Your task to perform on an android device: toggle notification dots Image 0: 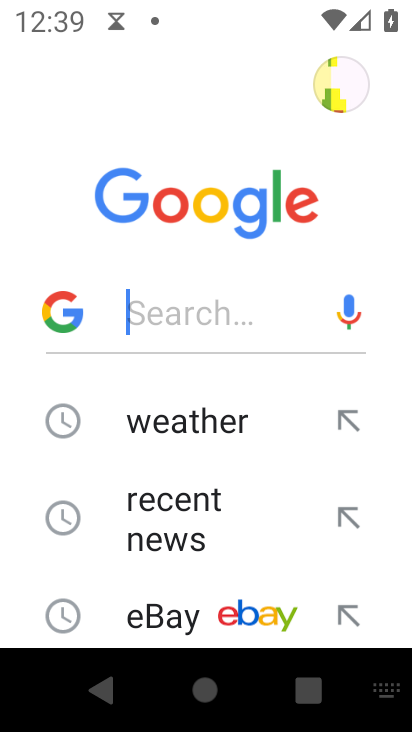
Step 0: press home button
Your task to perform on an android device: toggle notification dots Image 1: 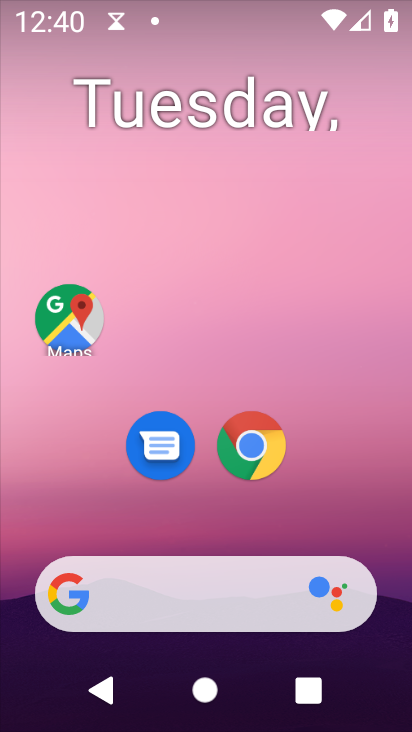
Step 1: drag from (184, 617) to (170, 54)
Your task to perform on an android device: toggle notification dots Image 2: 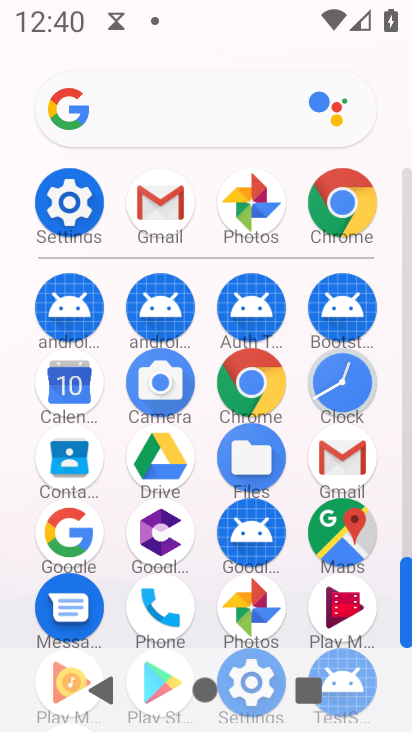
Step 2: click (67, 218)
Your task to perform on an android device: toggle notification dots Image 3: 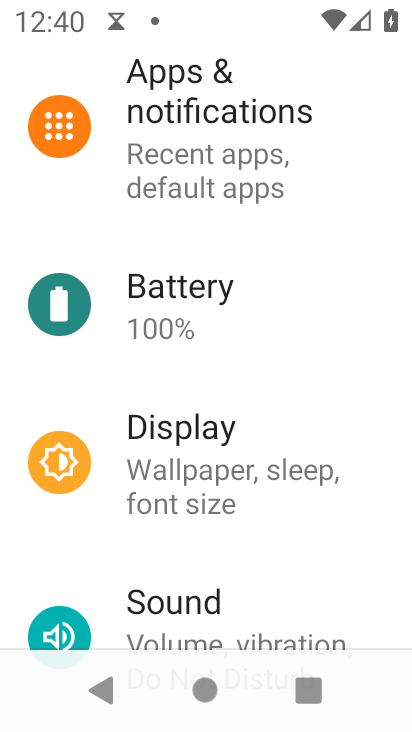
Step 3: click (208, 173)
Your task to perform on an android device: toggle notification dots Image 4: 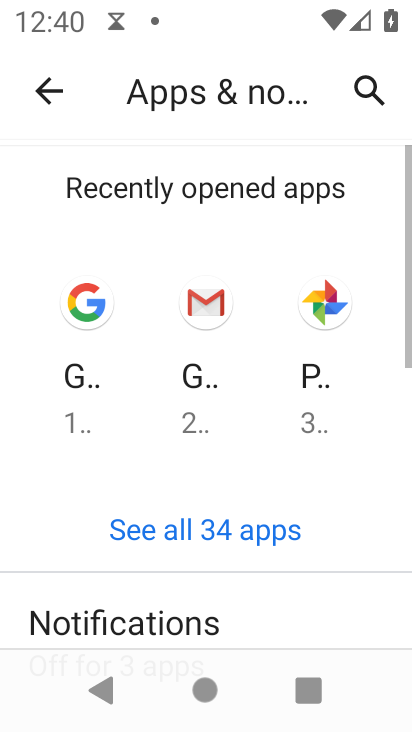
Step 4: drag from (269, 619) to (264, 179)
Your task to perform on an android device: toggle notification dots Image 5: 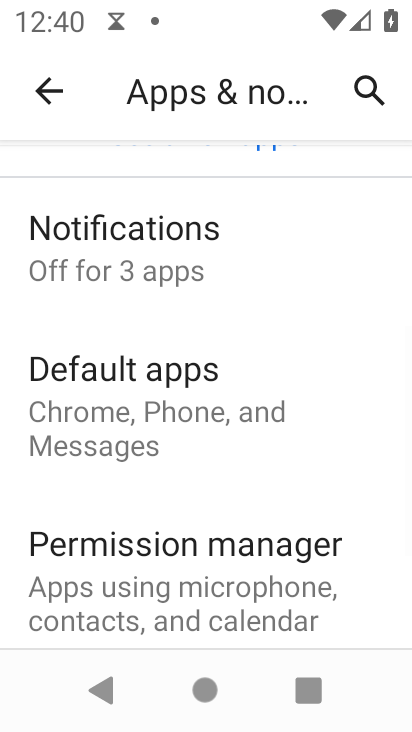
Step 5: drag from (236, 617) to (226, 154)
Your task to perform on an android device: toggle notification dots Image 6: 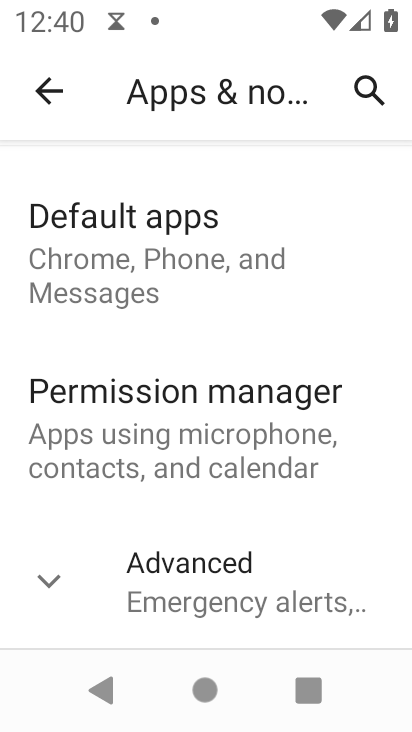
Step 6: drag from (212, 275) to (247, 583)
Your task to perform on an android device: toggle notification dots Image 7: 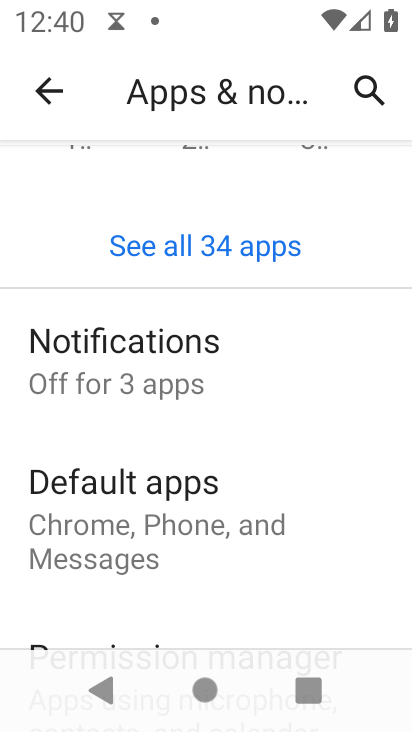
Step 7: click (180, 361)
Your task to perform on an android device: toggle notification dots Image 8: 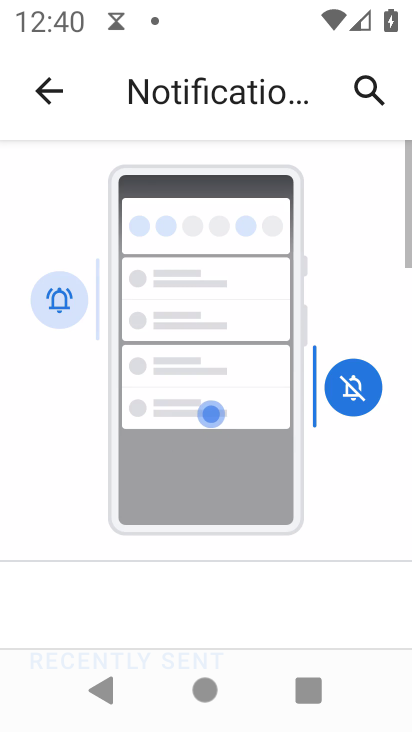
Step 8: drag from (258, 599) to (292, 8)
Your task to perform on an android device: toggle notification dots Image 9: 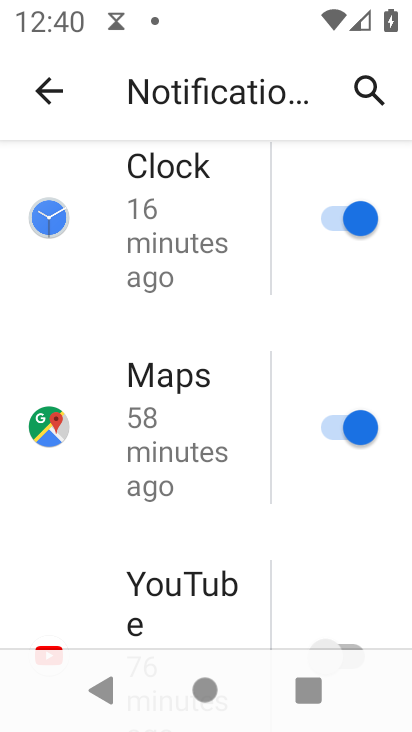
Step 9: drag from (244, 610) to (251, 151)
Your task to perform on an android device: toggle notification dots Image 10: 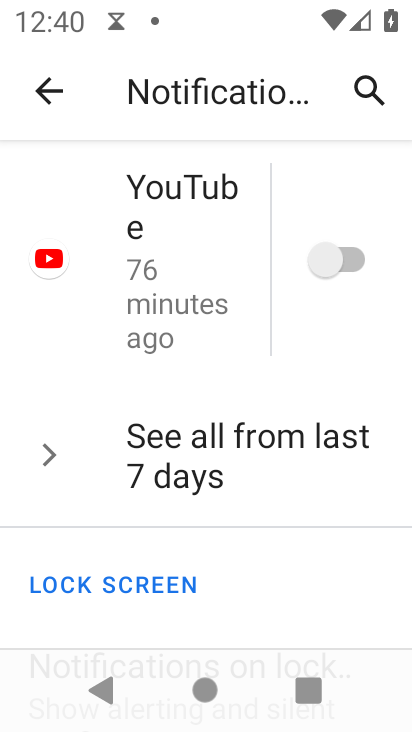
Step 10: drag from (254, 622) to (235, 195)
Your task to perform on an android device: toggle notification dots Image 11: 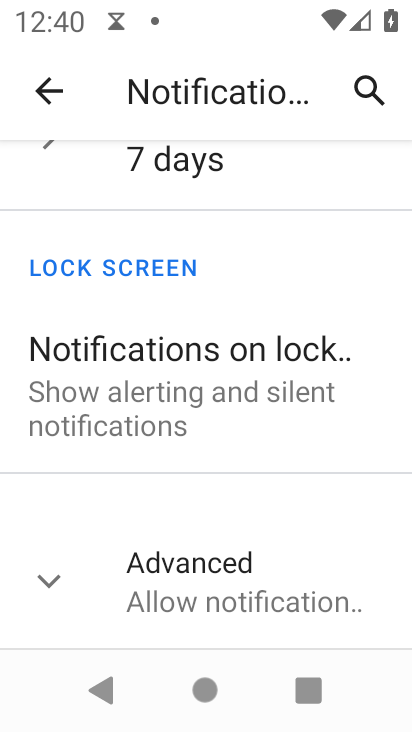
Step 11: click (233, 610)
Your task to perform on an android device: toggle notification dots Image 12: 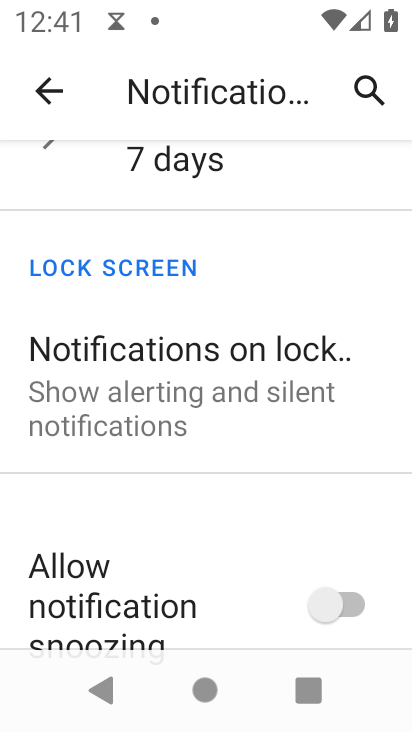
Step 12: drag from (235, 632) to (267, 88)
Your task to perform on an android device: toggle notification dots Image 13: 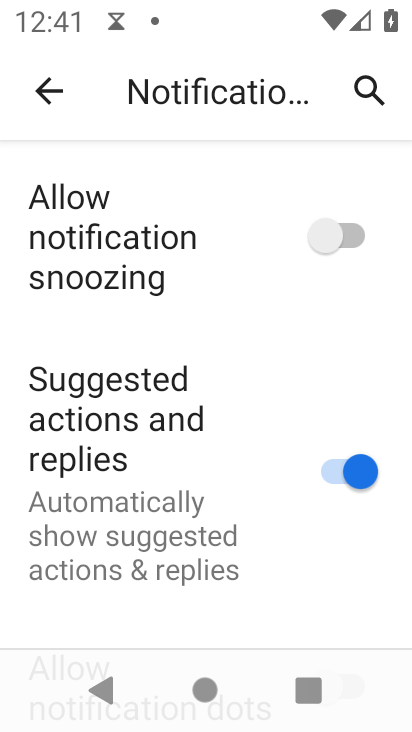
Step 13: drag from (265, 582) to (274, 211)
Your task to perform on an android device: toggle notification dots Image 14: 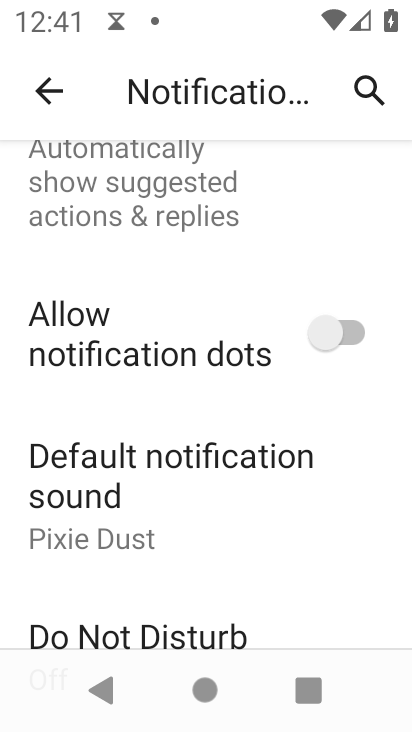
Step 14: click (340, 335)
Your task to perform on an android device: toggle notification dots Image 15: 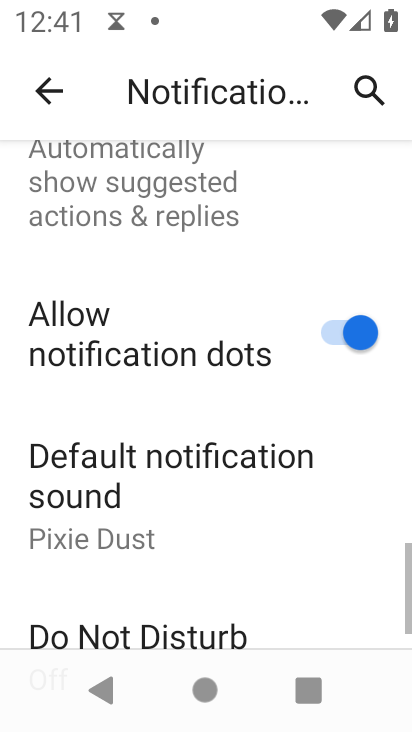
Step 15: task complete